Your task to perform on an android device: turn vacation reply on in the gmail app Image 0: 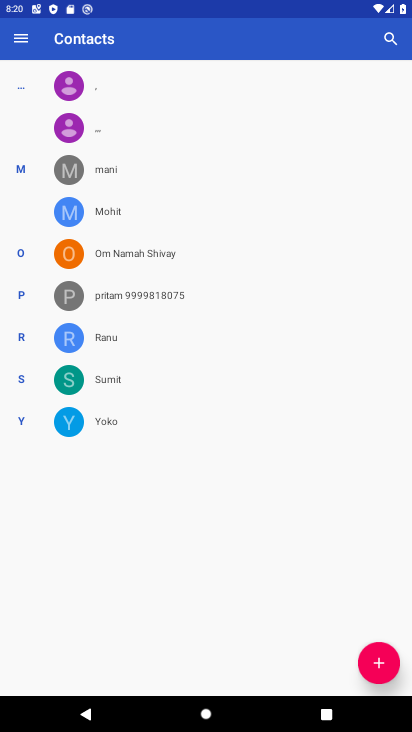
Step 0: press home button
Your task to perform on an android device: turn vacation reply on in the gmail app Image 1: 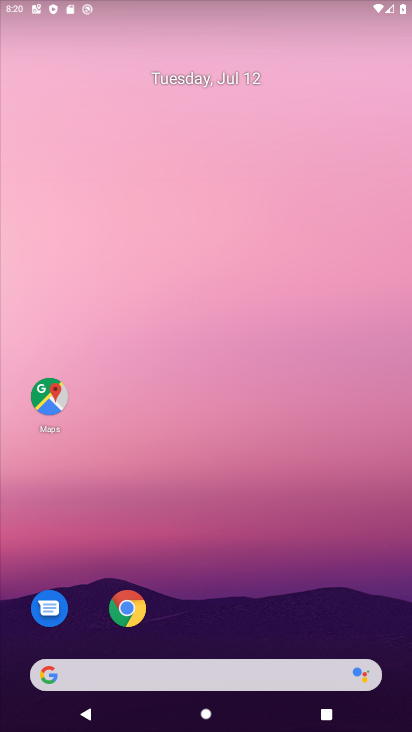
Step 1: drag from (295, 577) to (278, 65)
Your task to perform on an android device: turn vacation reply on in the gmail app Image 2: 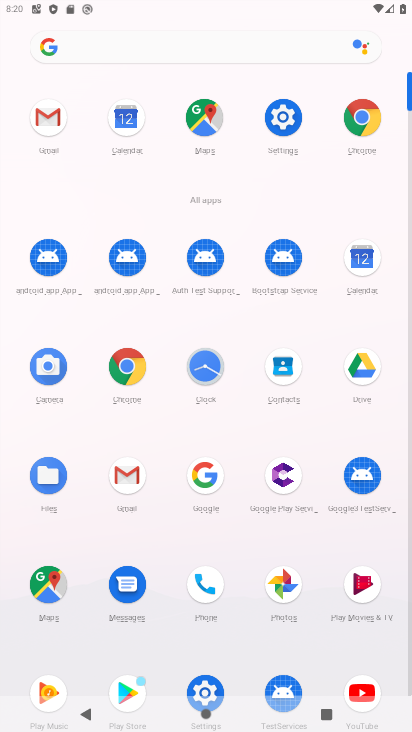
Step 2: click (54, 112)
Your task to perform on an android device: turn vacation reply on in the gmail app Image 3: 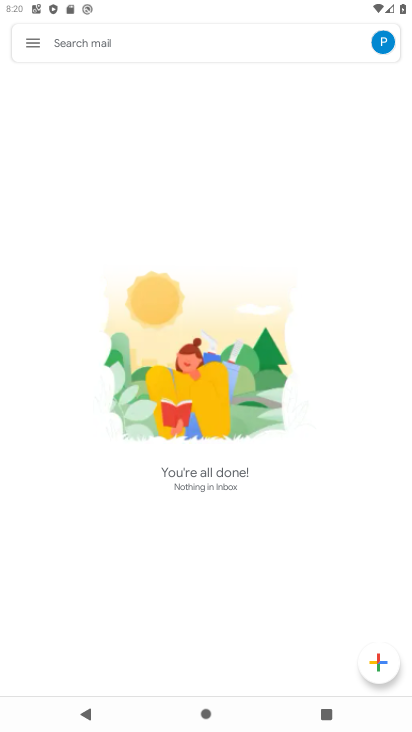
Step 3: click (31, 51)
Your task to perform on an android device: turn vacation reply on in the gmail app Image 4: 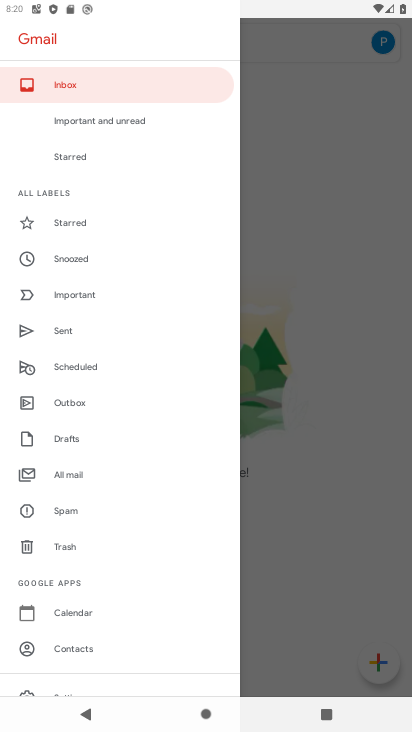
Step 4: click (62, 684)
Your task to perform on an android device: turn vacation reply on in the gmail app Image 5: 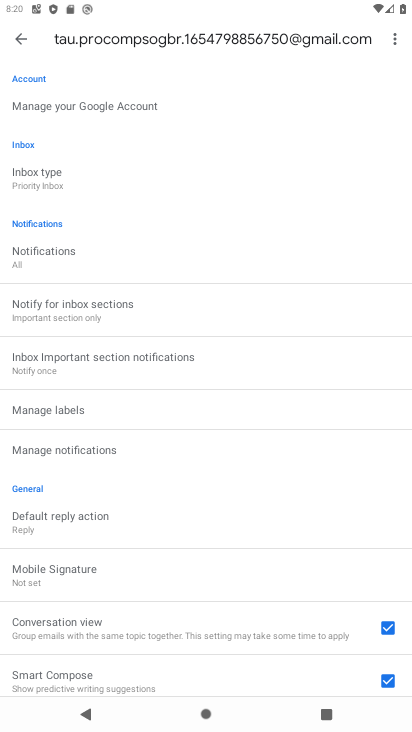
Step 5: drag from (103, 653) to (162, 296)
Your task to perform on an android device: turn vacation reply on in the gmail app Image 6: 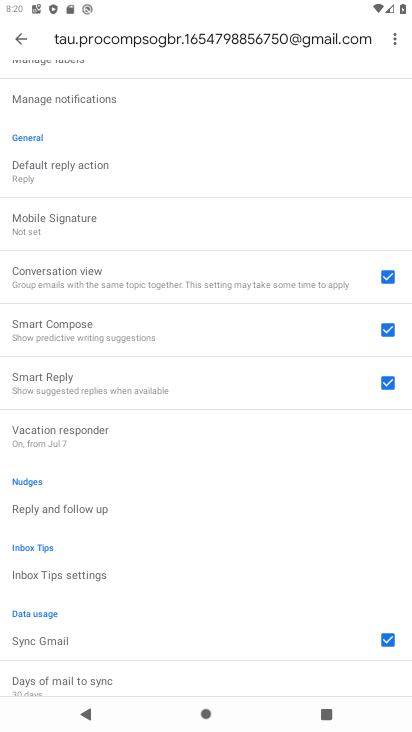
Step 6: click (68, 428)
Your task to perform on an android device: turn vacation reply on in the gmail app Image 7: 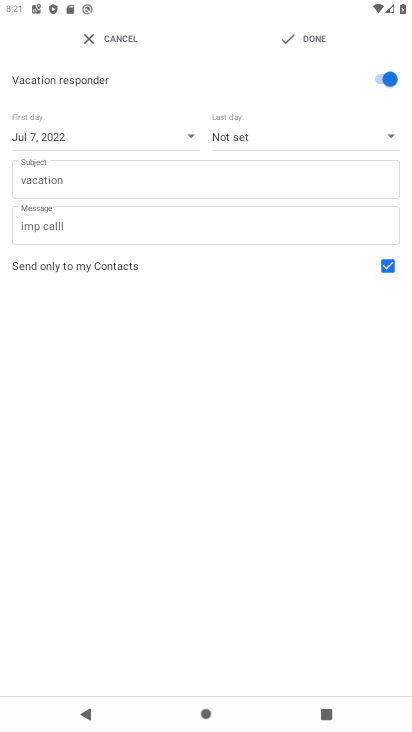
Step 7: click (317, 44)
Your task to perform on an android device: turn vacation reply on in the gmail app Image 8: 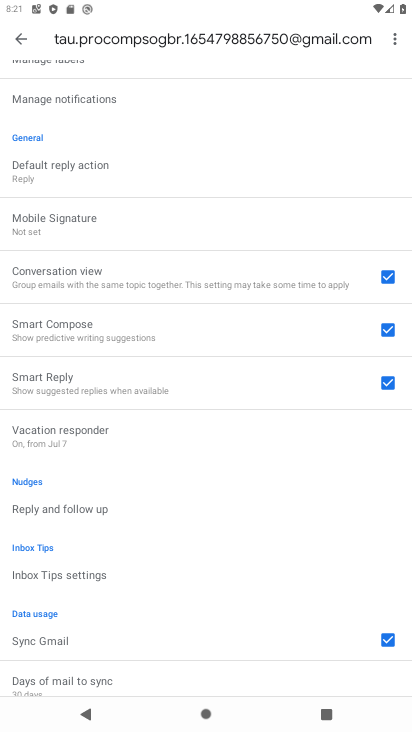
Step 8: task complete